Your task to perform on an android device: read, delete, or share a saved page in the chrome app Image 0: 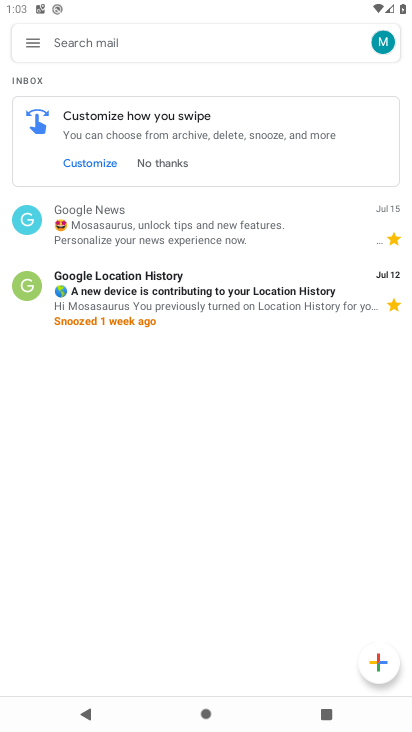
Step 0: press home button
Your task to perform on an android device: read, delete, or share a saved page in the chrome app Image 1: 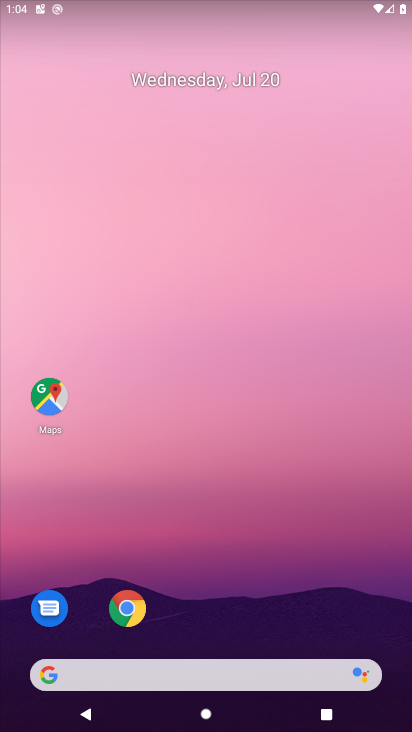
Step 1: click (136, 609)
Your task to perform on an android device: read, delete, or share a saved page in the chrome app Image 2: 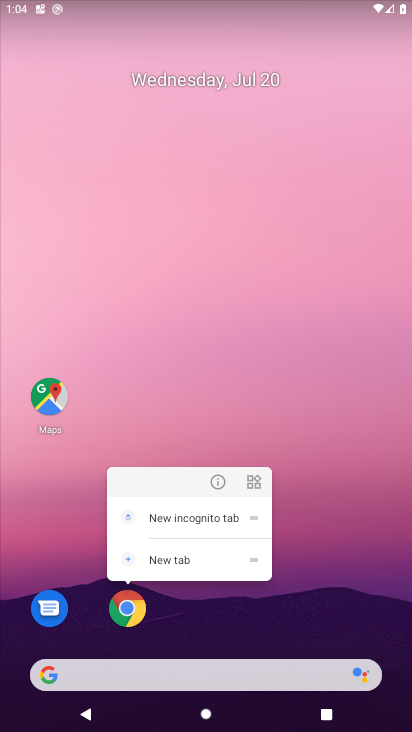
Step 2: click (128, 607)
Your task to perform on an android device: read, delete, or share a saved page in the chrome app Image 3: 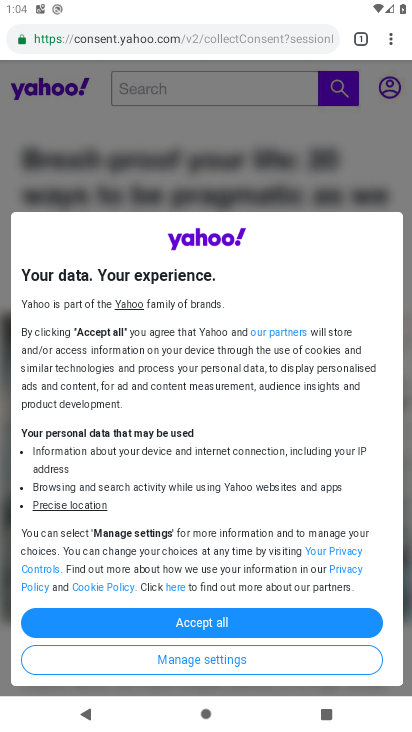
Step 3: click (394, 44)
Your task to perform on an android device: read, delete, or share a saved page in the chrome app Image 4: 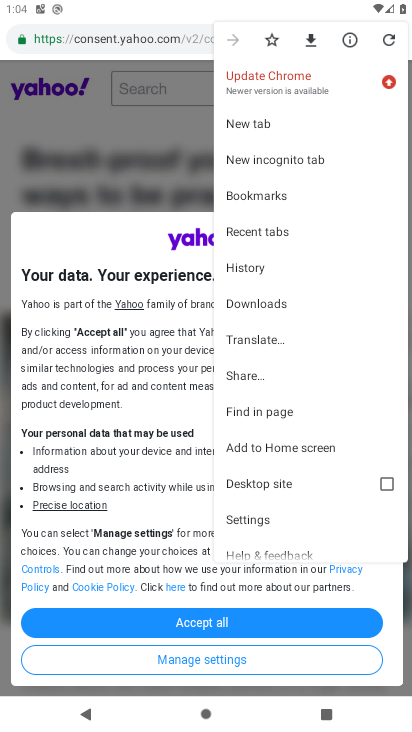
Step 4: click (260, 307)
Your task to perform on an android device: read, delete, or share a saved page in the chrome app Image 5: 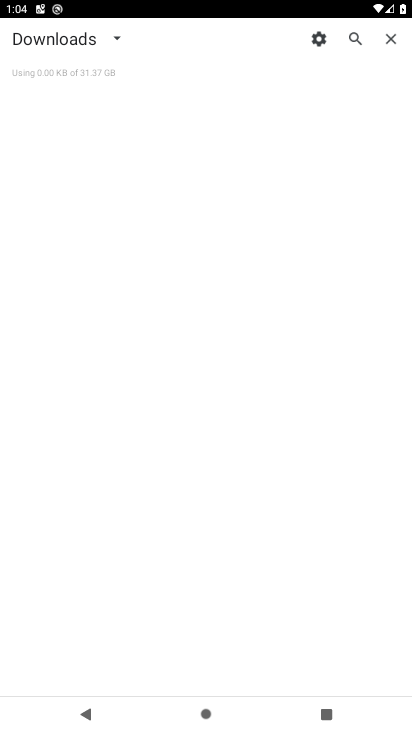
Step 5: click (116, 34)
Your task to perform on an android device: read, delete, or share a saved page in the chrome app Image 6: 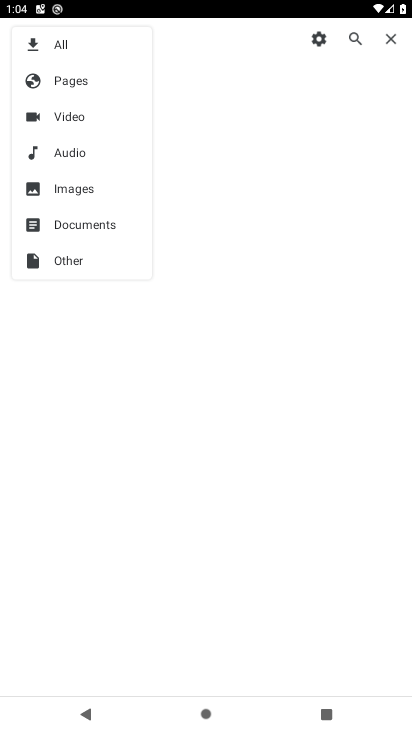
Step 6: click (64, 79)
Your task to perform on an android device: read, delete, or share a saved page in the chrome app Image 7: 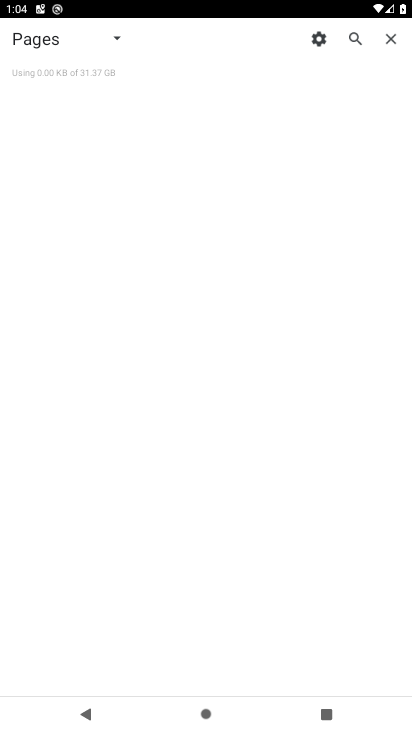
Step 7: task complete